Your task to perform on an android device: Search for sushi restaurants on Maps Image 0: 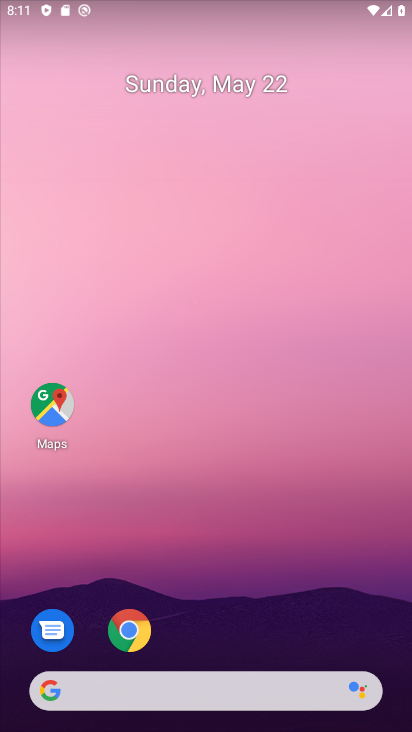
Step 0: drag from (370, 643) to (354, 237)
Your task to perform on an android device: Search for sushi restaurants on Maps Image 1: 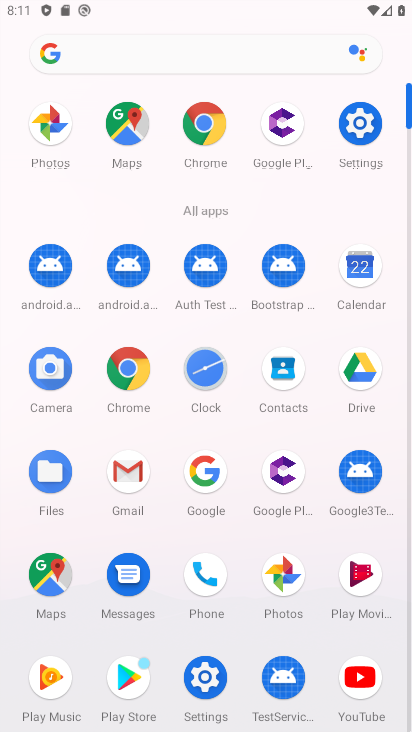
Step 1: click (52, 581)
Your task to perform on an android device: Search for sushi restaurants on Maps Image 2: 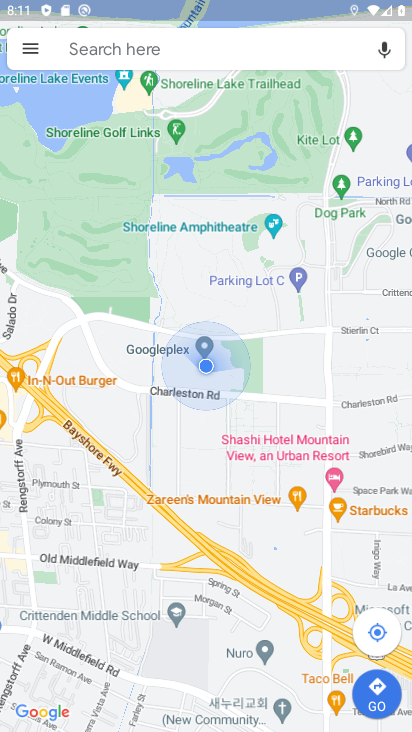
Step 2: click (158, 48)
Your task to perform on an android device: Search for sushi restaurants on Maps Image 3: 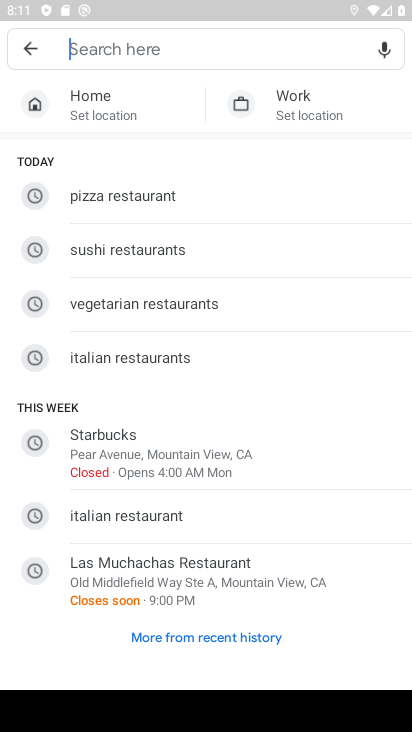
Step 3: click (160, 42)
Your task to perform on an android device: Search for sushi restaurants on Maps Image 4: 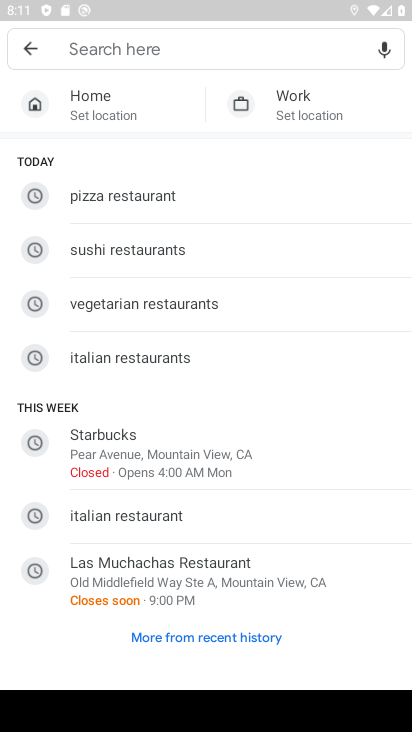
Step 4: type "sushi restaurants"
Your task to perform on an android device: Search for sushi restaurants on Maps Image 5: 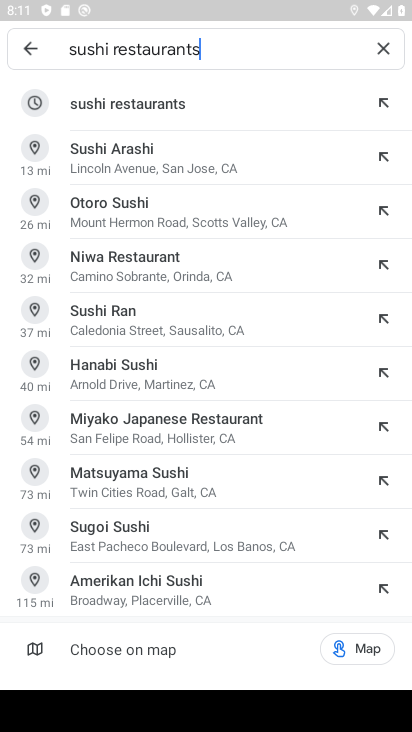
Step 5: click (199, 115)
Your task to perform on an android device: Search for sushi restaurants on Maps Image 6: 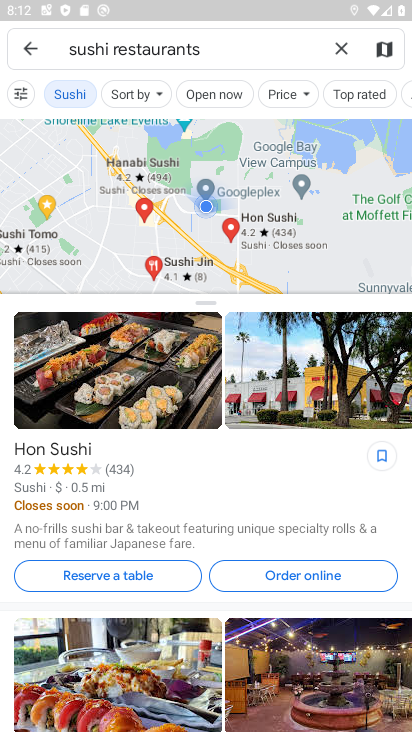
Step 6: task complete